Your task to perform on an android device: delete browsing data in the chrome app Image 0: 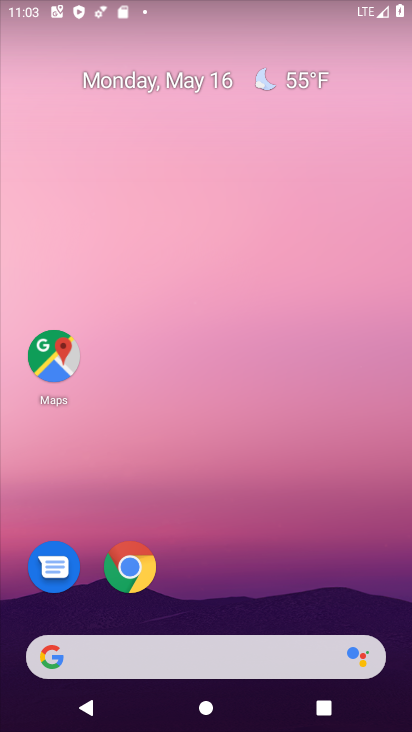
Step 0: click (133, 577)
Your task to perform on an android device: delete browsing data in the chrome app Image 1: 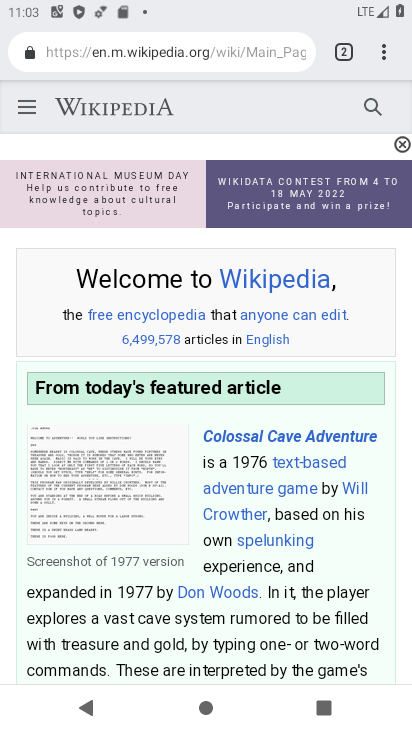
Step 1: drag from (383, 56) to (286, 618)
Your task to perform on an android device: delete browsing data in the chrome app Image 2: 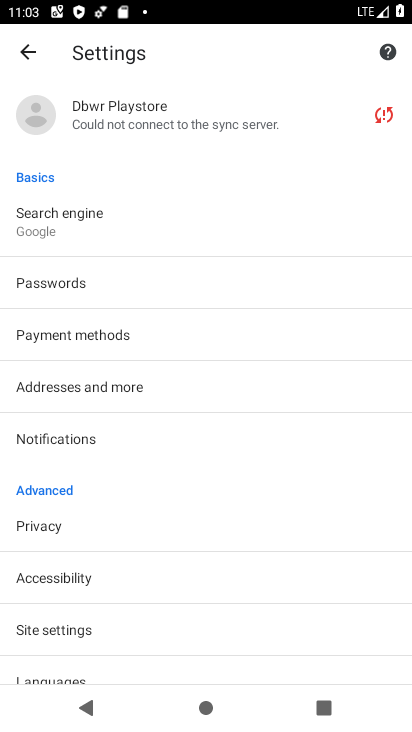
Step 2: drag from (166, 602) to (201, 385)
Your task to perform on an android device: delete browsing data in the chrome app Image 3: 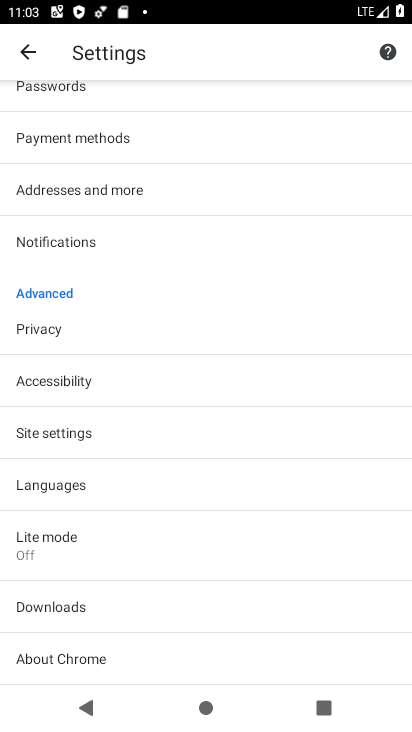
Step 3: click (66, 326)
Your task to perform on an android device: delete browsing data in the chrome app Image 4: 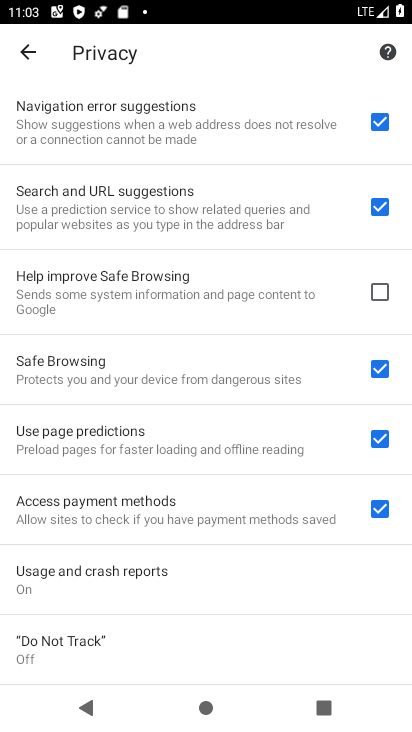
Step 4: drag from (126, 636) to (216, 273)
Your task to perform on an android device: delete browsing data in the chrome app Image 5: 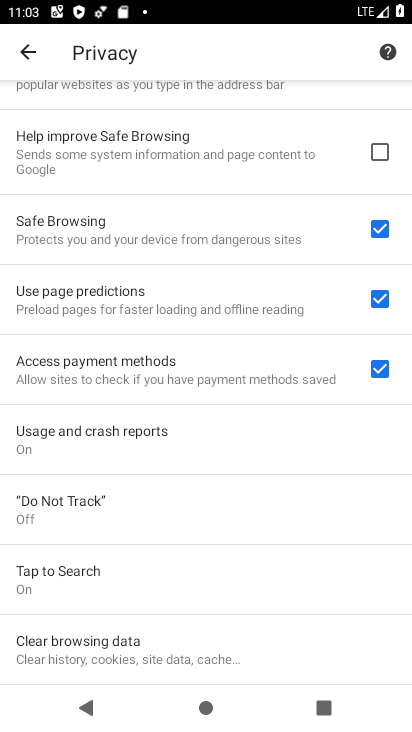
Step 5: click (163, 654)
Your task to perform on an android device: delete browsing data in the chrome app Image 6: 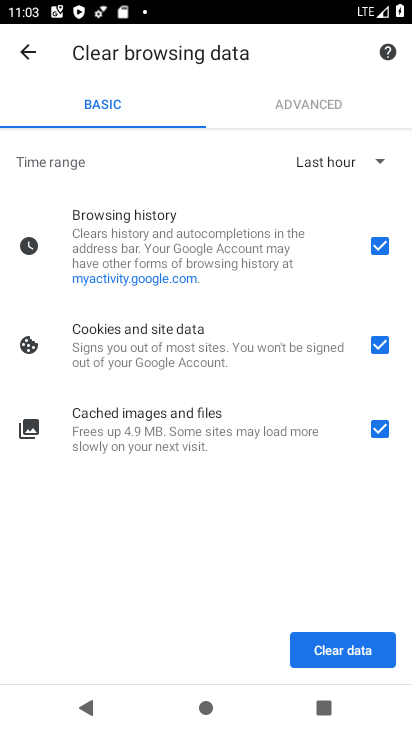
Step 6: click (360, 650)
Your task to perform on an android device: delete browsing data in the chrome app Image 7: 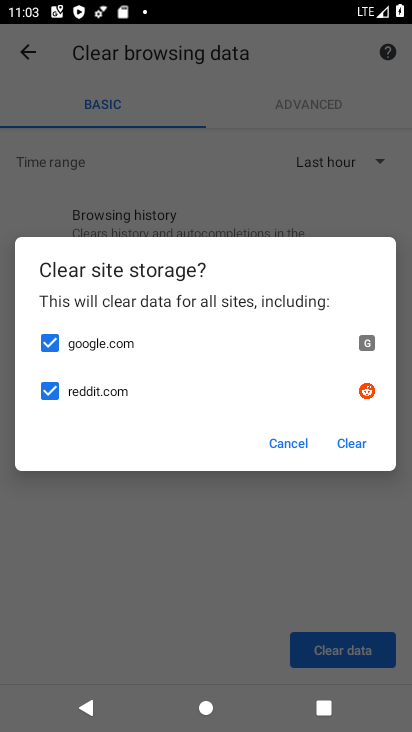
Step 7: click (362, 452)
Your task to perform on an android device: delete browsing data in the chrome app Image 8: 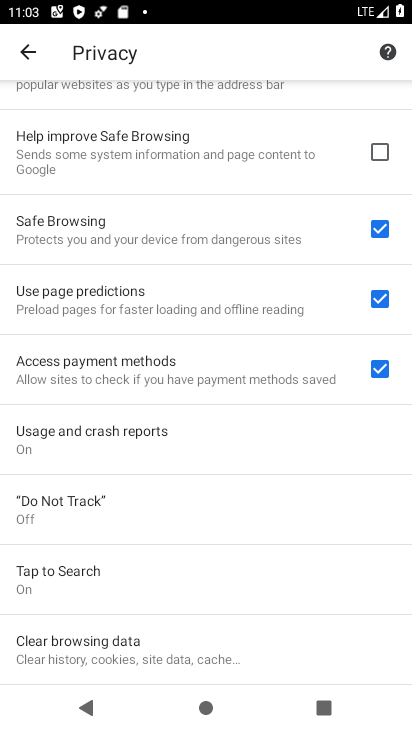
Step 8: task complete